Your task to perform on an android device: open device folders in google photos Image 0: 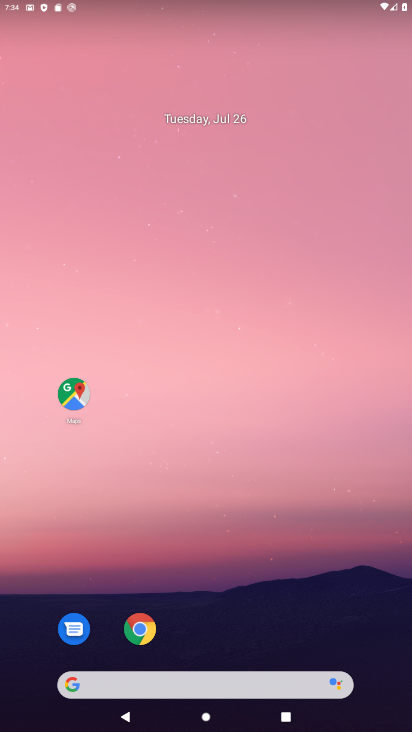
Step 0: press home button
Your task to perform on an android device: open device folders in google photos Image 1: 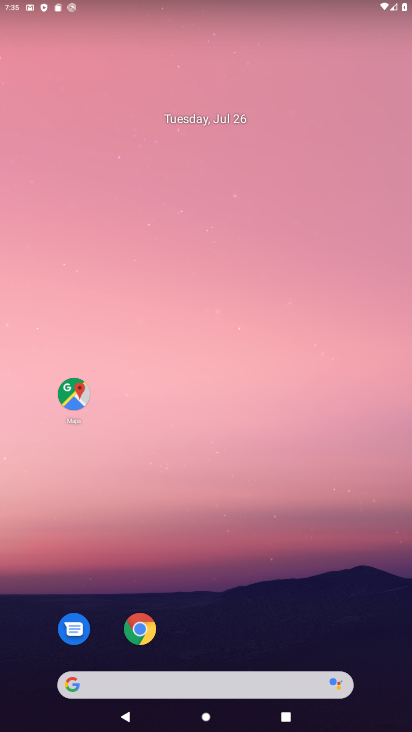
Step 1: drag from (205, 654) to (264, 87)
Your task to perform on an android device: open device folders in google photos Image 2: 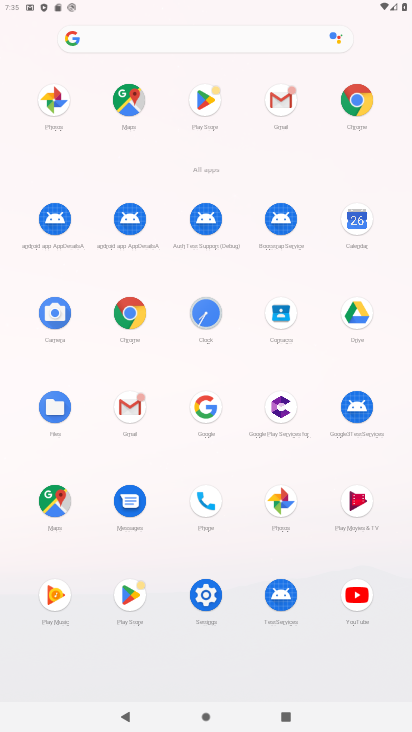
Step 2: click (278, 500)
Your task to perform on an android device: open device folders in google photos Image 3: 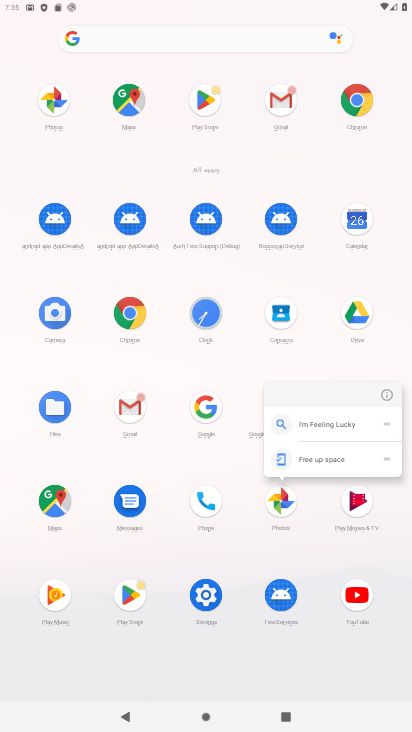
Step 3: click (279, 496)
Your task to perform on an android device: open device folders in google photos Image 4: 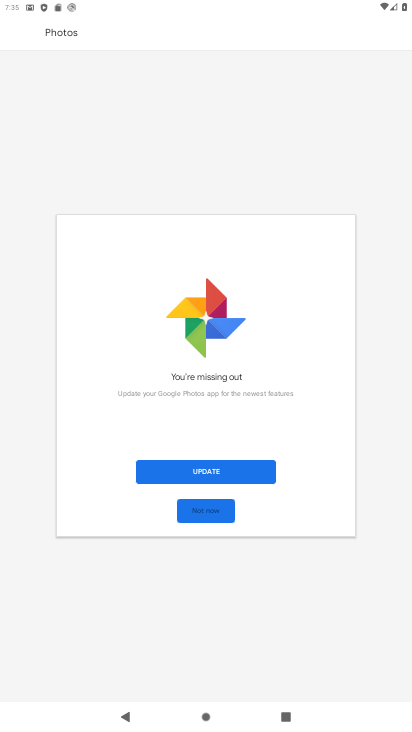
Step 4: click (202, 470)
Your task to perform on an android device: open device folders in google photos Image 5: 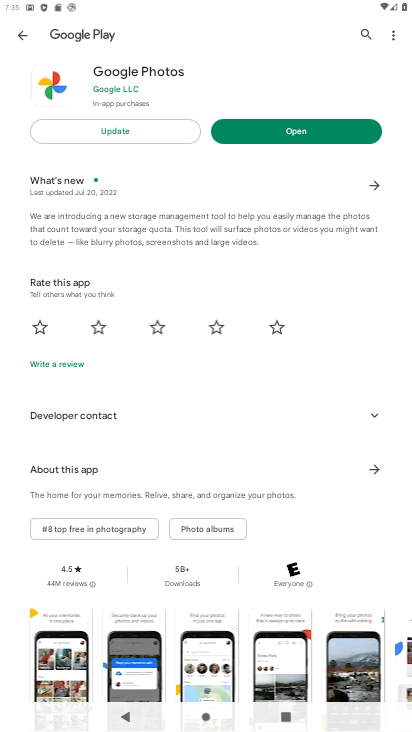
Step 5: click (108, 129)
Your task to perform on an android device: open device folders in google photos Image 6: 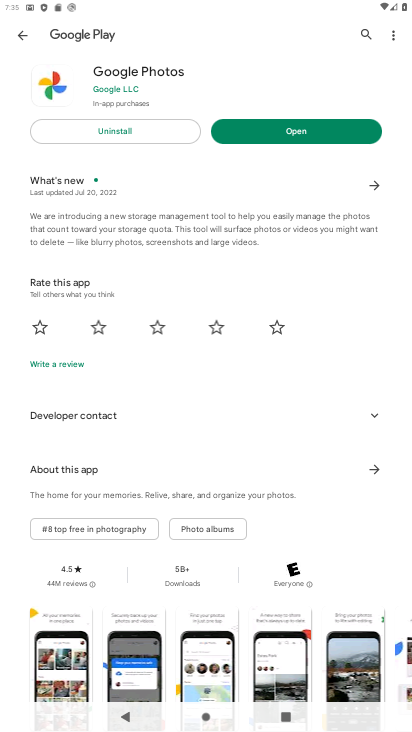
Step 6: click (292, 124)
Your task to perform on an android device: open device folders in google photos Image 7: 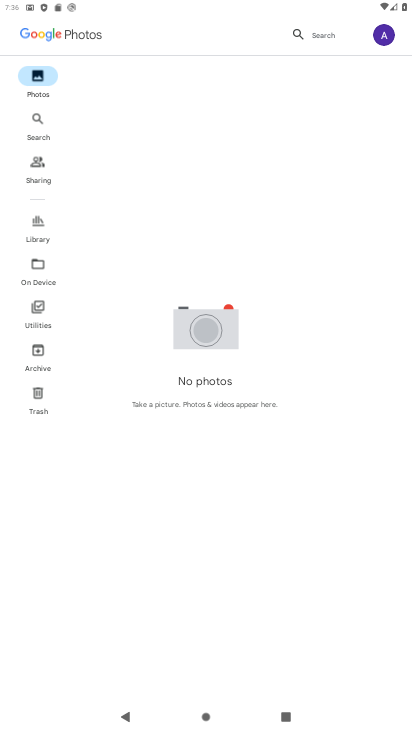
Step 7: click (38, 119)
Your task to perform on an android device: open device folders in google photos Image 8: 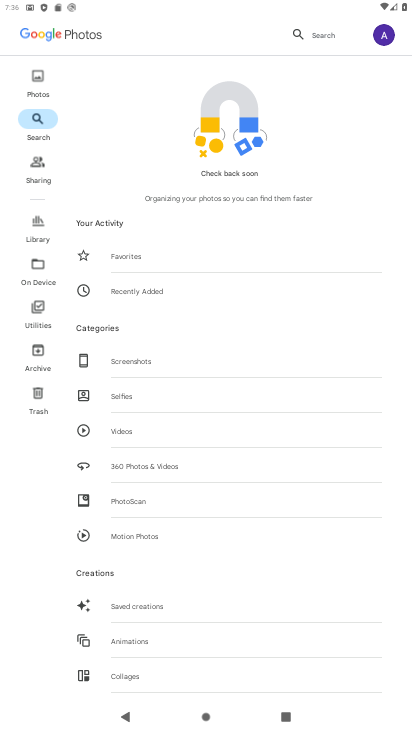
Step 8: drag from (147, 630) to (218, 235)
Your task to perform on an android device: open device folders in google photos Image 9: 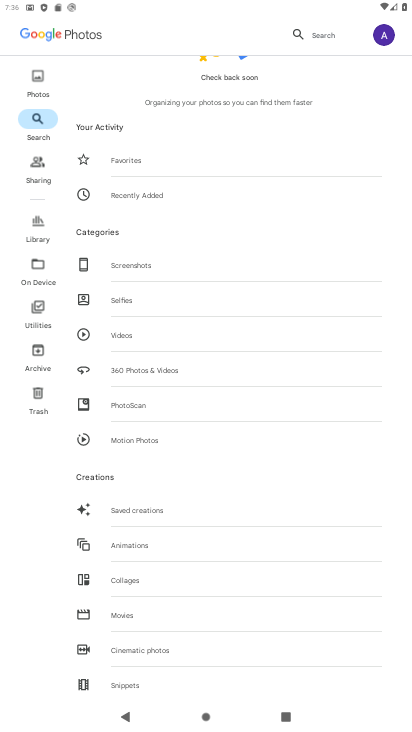
Step 9: drag from (171, 343) to (198, 618)
Your task to perform on an android device: open device folders in google photos Image 10: 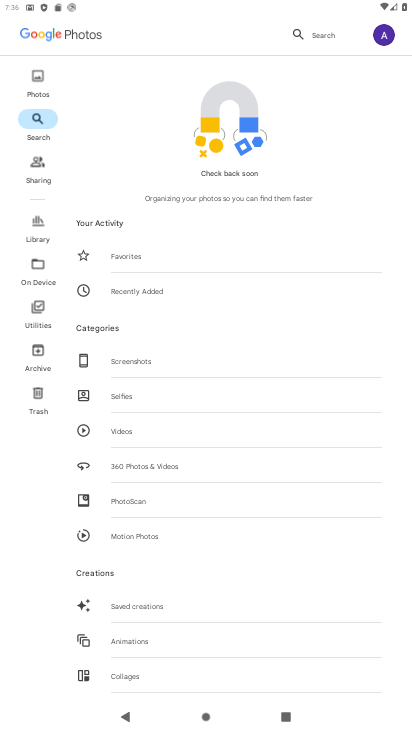
Step 10: click (292, 34)
Your task to perform on an android device: open device folders in google photos Image 11: 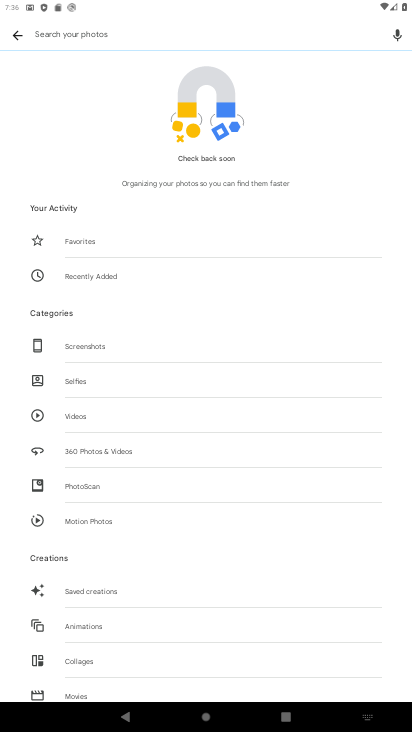
Step 11: type "device"
Your task to perform on an android device: open device folders in google photos Image 12: 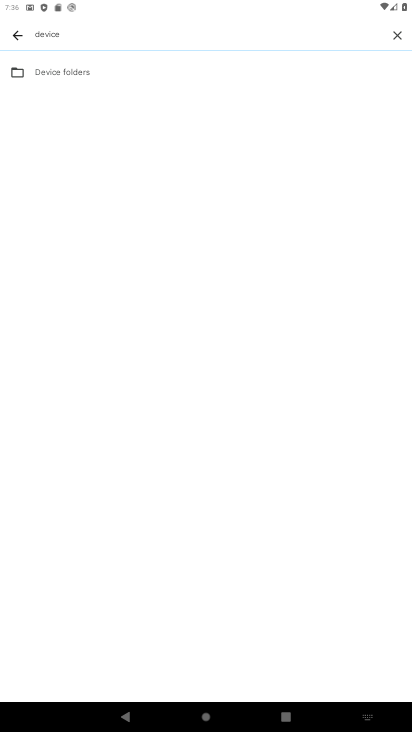
Step 12: click (81, 79)
Your task to perform on an android device: open device folders in google photos Image 13: 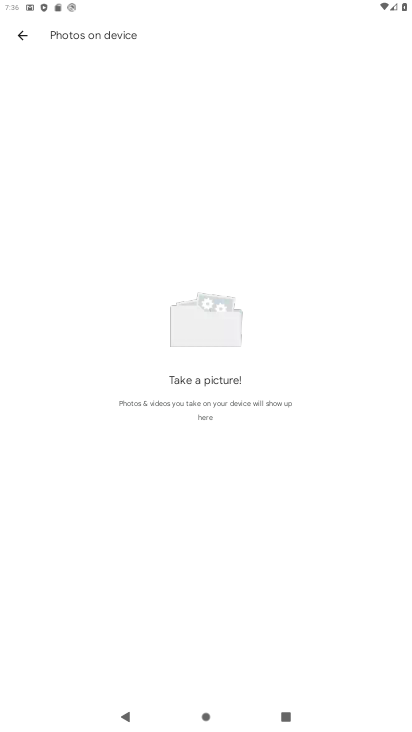
Step 13: task complete